Your task to perform on an android device: clear all cookies in the chrome app Image 0: 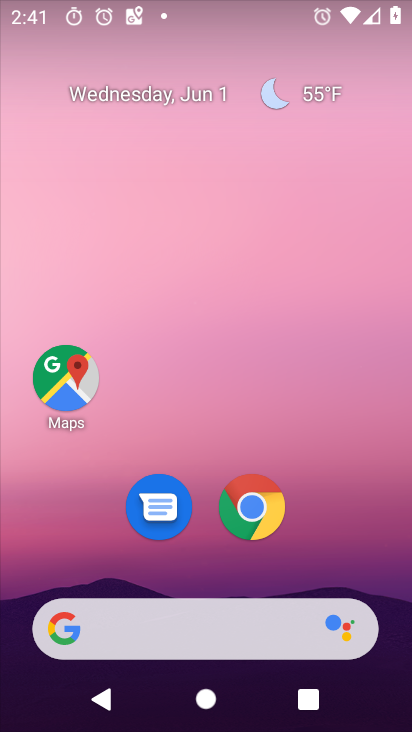
Step 0: click (258, 507)
Your task to perform on an android device: clear all cookies in the chrome app Image 1: 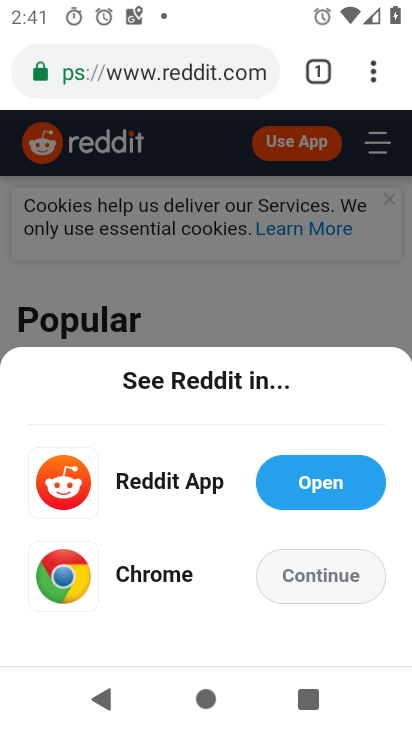
Step 1: click (370, 76)
Your task to perform on an android device: clear all cookies in the chrome app Image 2: 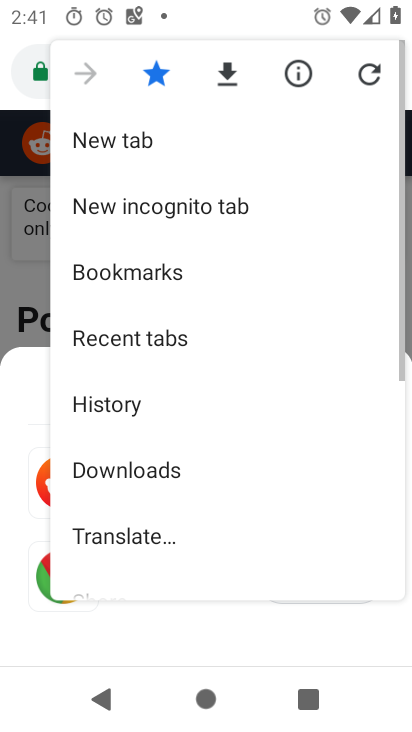
Step 2: drag from (166, 505) to (199, 149)
Your task to perform on an android device: clear all cookies in the chrome app Image 3: 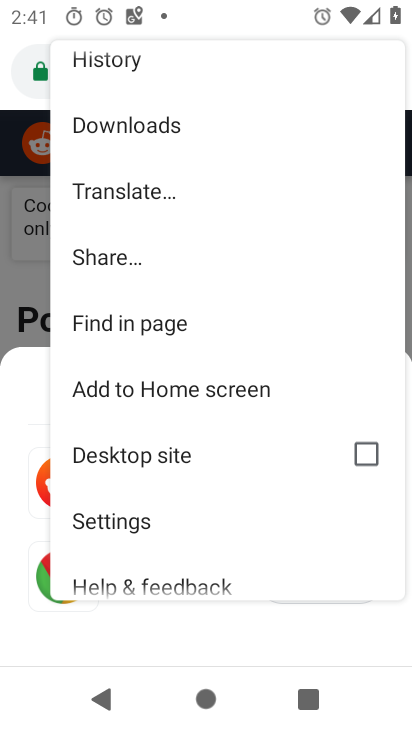
Step 3: click (112, 534)
Your task to perform on an android device: clear all cookies in the chrome app Image 4: 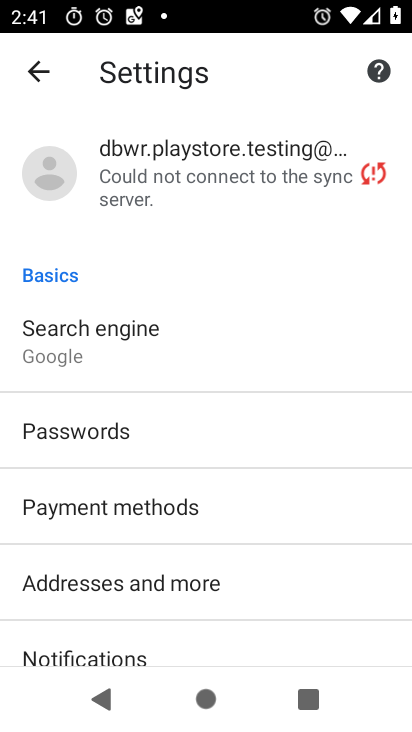
Step 4: drag from (252, 514) to (280, 243)
Your task to perform on an android device: clear all cookies in the chrome app Image 5: 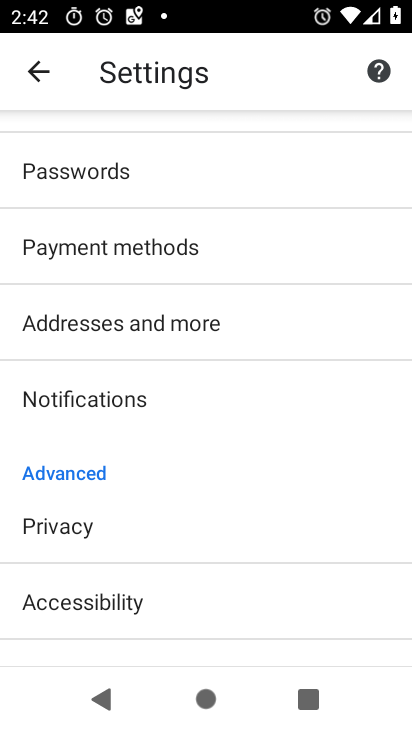
Step 5: drag from (241, 523) to (235, 216)
Your task to perform on an android device: clear all cookies in the chrome app Image 6: 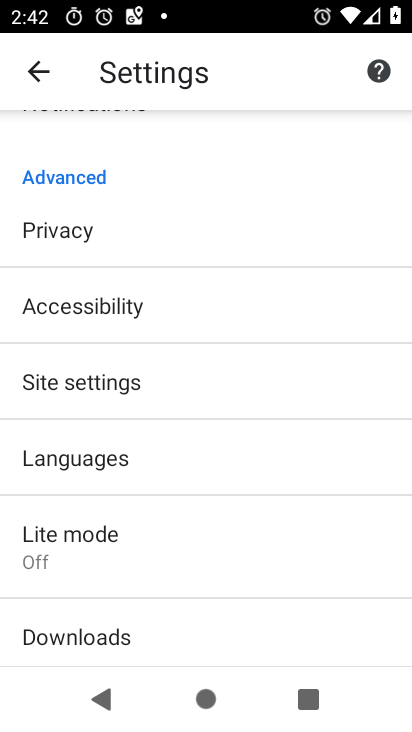
Step 6: click (56, 232)
Your task to perform on an android device: clear all cookies in the chrome app Image 7: 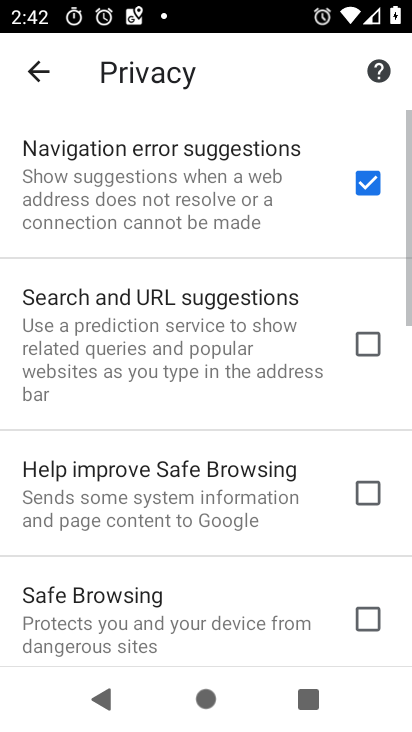
Step 7: drag from (193, 578) to (205, 121)
Your task to perform on an android device: clear all cookies in the chrome app Image 8: 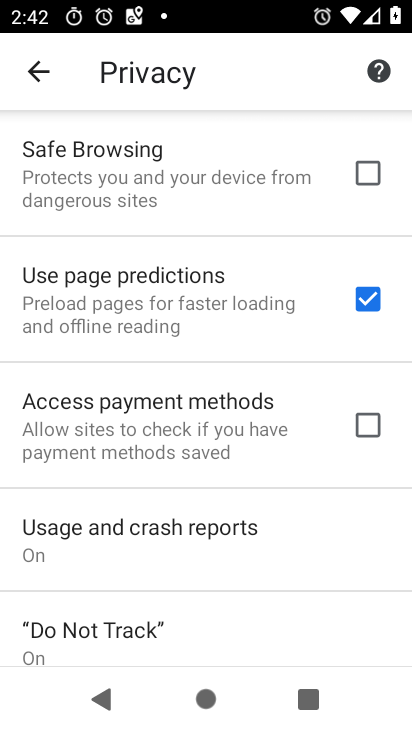
Step 8: drag from (149, 511) to (166, 164)
Your task to perform on an android device: clear all cookies in the chrome app Image 9: 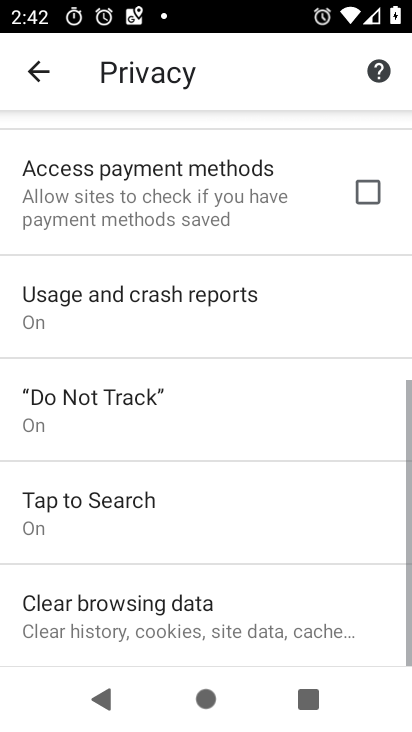
Step 9: click (101, 607)
Your task to perform on an android device: clear all cookies in the chrome app Image 10: 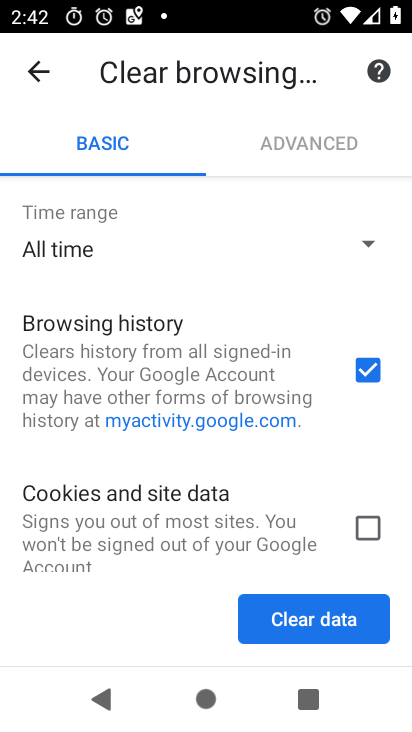
Step 10: click (376, 531)
Your task to perform on an android device: clear all cookies in the chrome app Image 11: 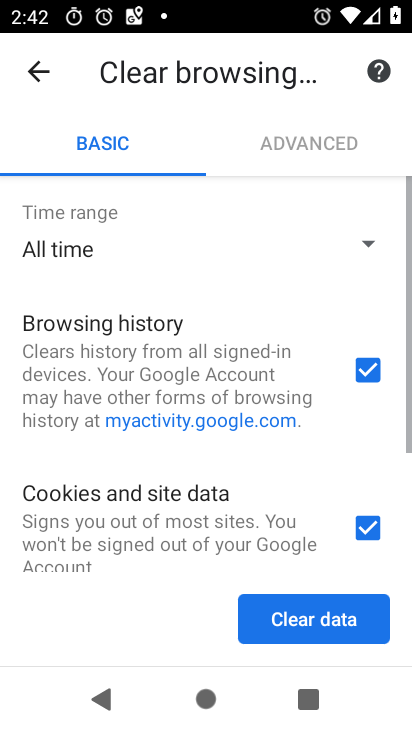
Step 11: click (377, 381)
Your task to perform on an android device: clear all cookies in the chrome app Image 12: 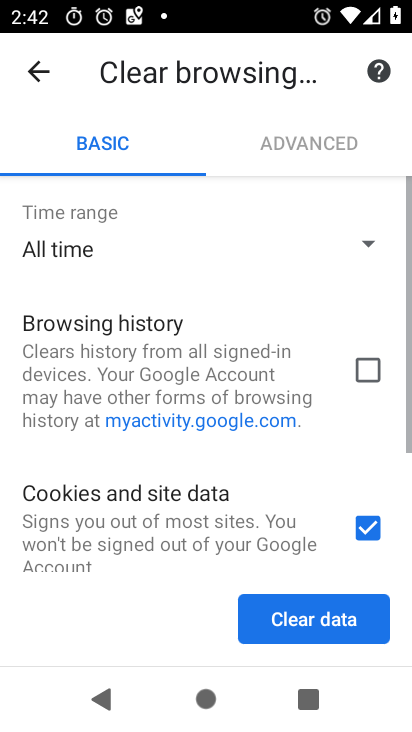
Step 12: drag from (205, 497) to (225, 223)
Your task to perform on an android device: clear all cookies in the chrome app Image 13: 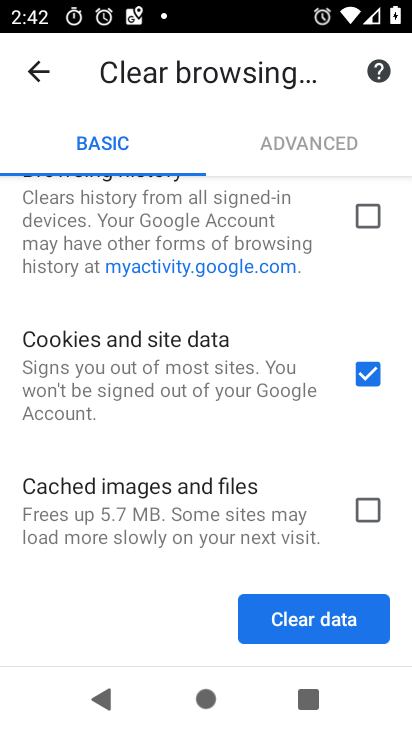
Step 13: click (284, 623)
Your task to perform on an android device: clear all cookies in the chrome app Image 14: 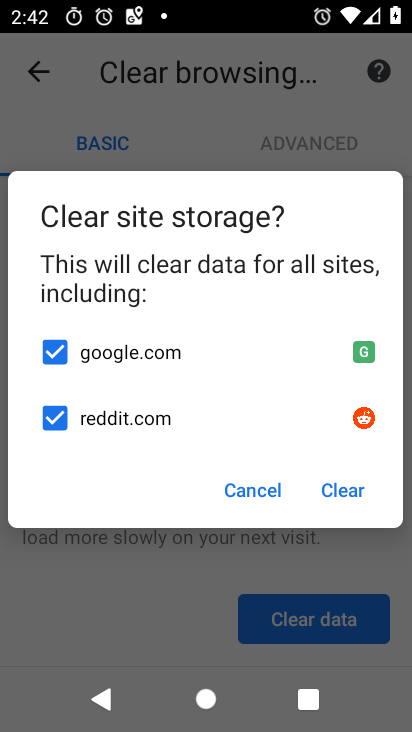
Step 14: click (352, 487)
Your task to perform on an android device: clear all cookies in the chrome app Image 15: 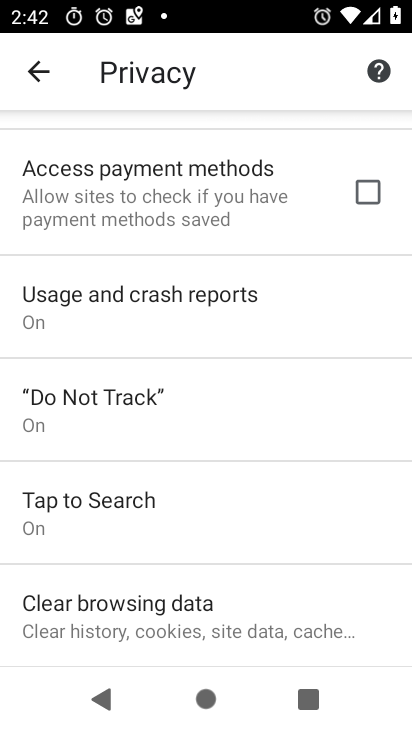
Step 15: task complete